Your task to perform on an android device: Clear the shopping cart on amazon. Search for "amazon basics triple a" on amazon, select the first entry, add it to the cart, then select checkout. Image 0: 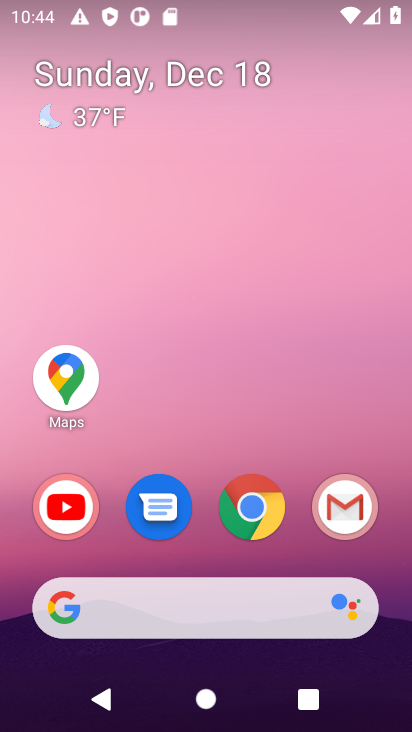
Step 0: click (246, 500)
Your task to perform on an android device: Clear the shopping cart on amazon. Search for "amazon basics triple a" on amazon, select the first entry, add it to the cart, then select checkout. Image 1: 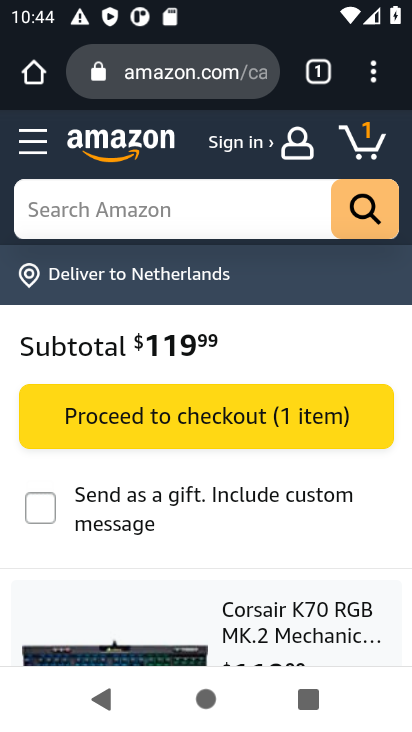
Step 1: drag from (194, 444) to (200, 194)
Your task to perform on an android device: Clear the shopping cart on amazon. Search for "amazon basics triple a" on amazon, select the first entry, add it to the cart, then select checkout. Image 2: 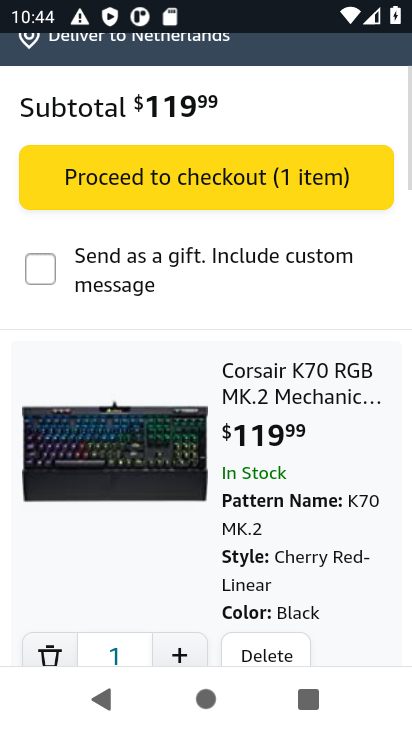
Step 2: drag from (203, 466) to (205, 215)
Your task to perform on an android device: Clear the shopping cart on amazon. Search for "amazon basics triple a" on amazon, select the first entry, add it to the cart, then select checkout. Image 3: 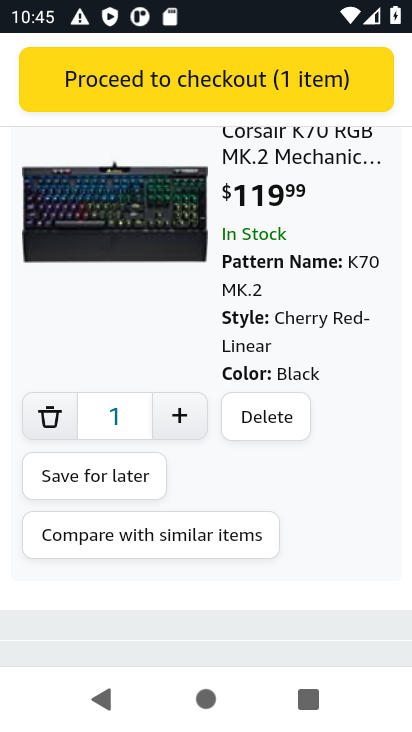
Step 3: click (262, 423)
Your task to perform on an android device: Clear the shopping cart on amazon. Search for "amazon basics triple a" on amazon, select the first entry, add it to the cart, then select checkout. Image 4: 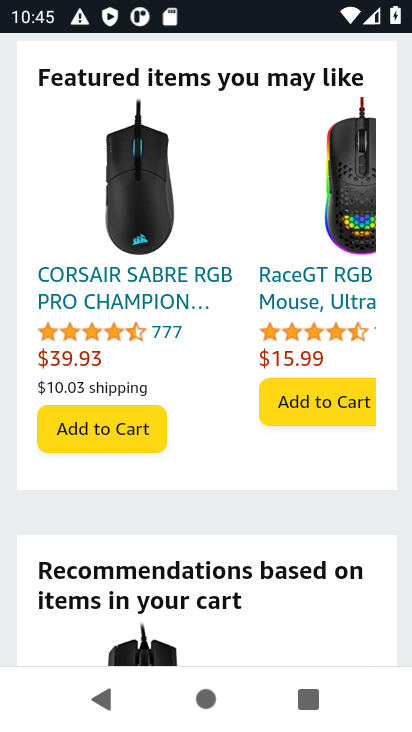
Step 4: drag from (213, 418) to (200, 573)
Your task to perform on an android device: Clear the shopping cart on amazon. Search for "amazon basics triple a" on amazon, select the first entry, add it to the cart, then select checkout. Image 5: 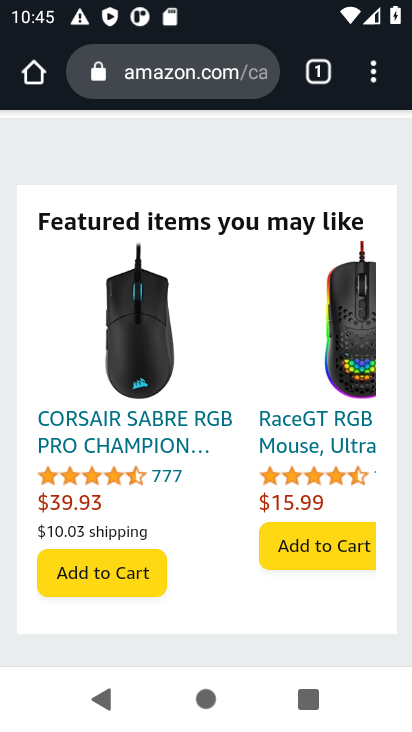
Step 5: drag from (217, 408) to (221, 572)
Your task to perform on an android device: Clear the shopping cart on amazon. Search for "amazon basics triple a" on amazon, select the first entry, add it to the cart, then select checkout. Image 6: 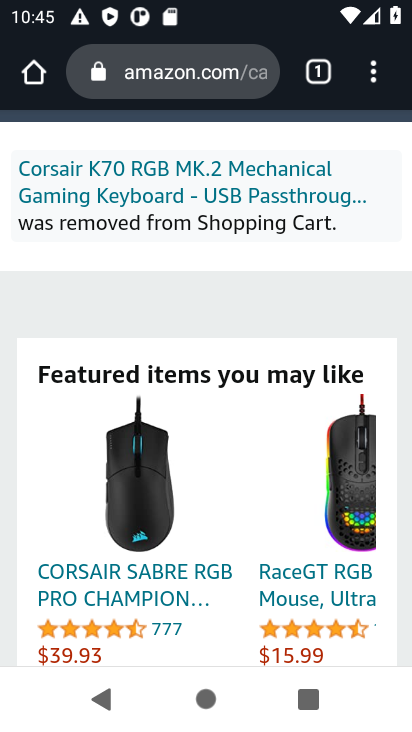
Step 6: drag from (187, 283) to (192, 503)
Your task to perform on an android device: Clear the shopping cart on amazon. Search for "amazon basics triple a" on amazon, select the first entry, add it to the cart, then select checkout. Image 7: 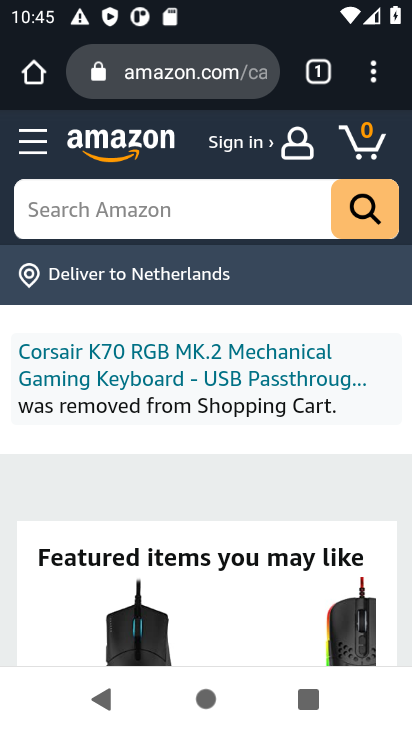
Step 7: click (41, 210)
Your task to perform on an android device: Clear the shopping cart on amazon. Search for "amazon basics triple a" on amazon, select the first entry, add it to the cart, then select checkout. Image 8: 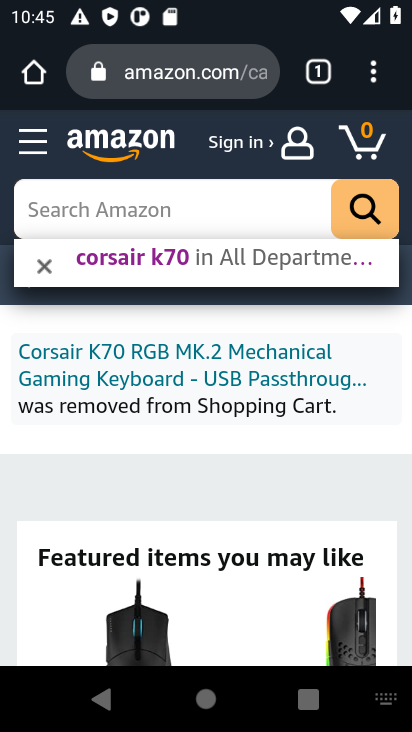
Step 8: type "amazon basics triple a"
Your task to perform on an android device: Clear the shopping cart on amazon. Search for "amazon basics triple a" on amazon, select the first entry, add it to the cart, then select checkout. Image 9: 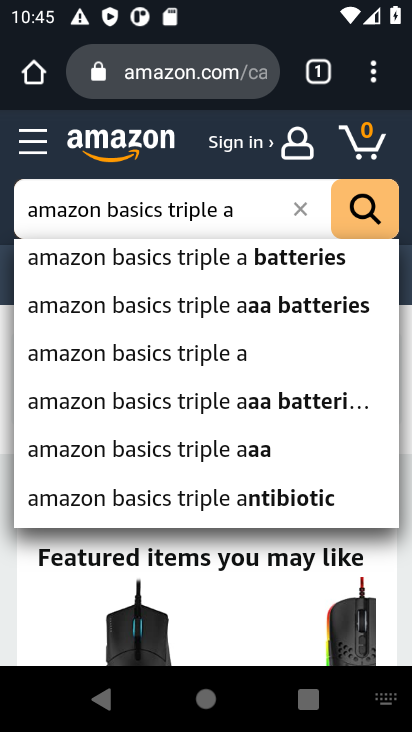
Step 9: click (173, 264)
Your task to perform on an android device: Clear the shopping cart on amazon. Search for "amazon basics triple a" on amazon, select the first entry, add it to the cart, then select checkout. Image 10: 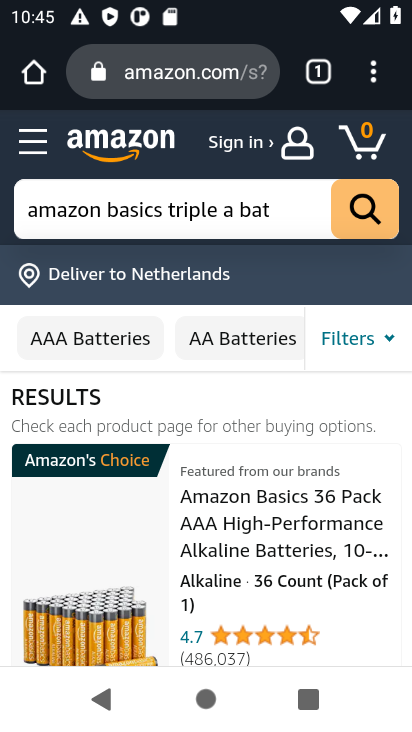
Step 10: drag from (144, 539) to (180, 331)
Your task to perform on an android device: Clear the shopping cart on amazon. Search for "amazon basics triple a" on amazon, select the first entry, add it to the cart, then select checkout. Image 11: 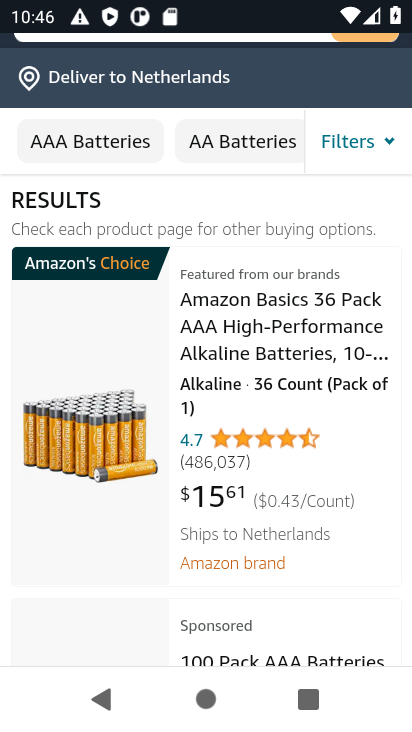
Step 11: drag from (136, 518) to (141, 365)
Your task to perform on an android device: Clear the shopping cart on amazon. Search for "amazon basics triple a" on amazon, select the first entry, add it to the cart, then select checkout. Image 12: 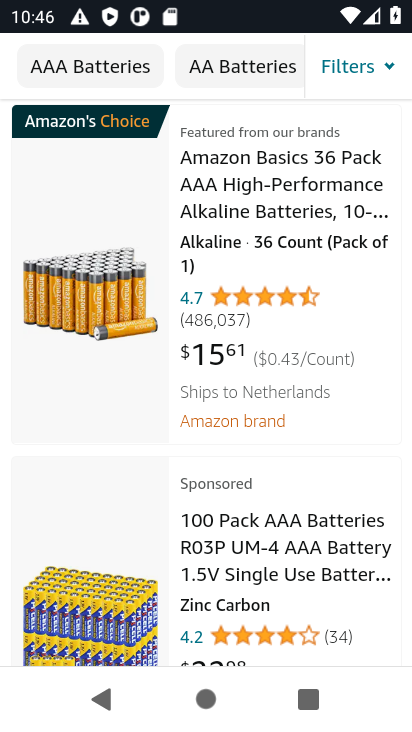
Step 12: click (272, 223)
Your task to perform on an android device: Clear the shopping cart on amazon. Search for "amazon basics triple a" on amazon, select the first entry, add it to the cart, then select checkout. Image 13: 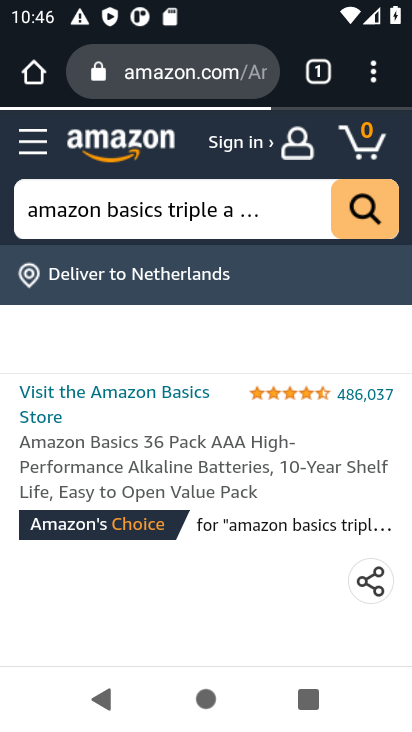
Step 13: drag from (234, 526) to (226, 225)
Your task to perform on an android device: Clear the shopping cart on amazon. Search for "amazon basics triple a" on amazon, select the first entry, add it to the cart, then select checkout. Image 14: 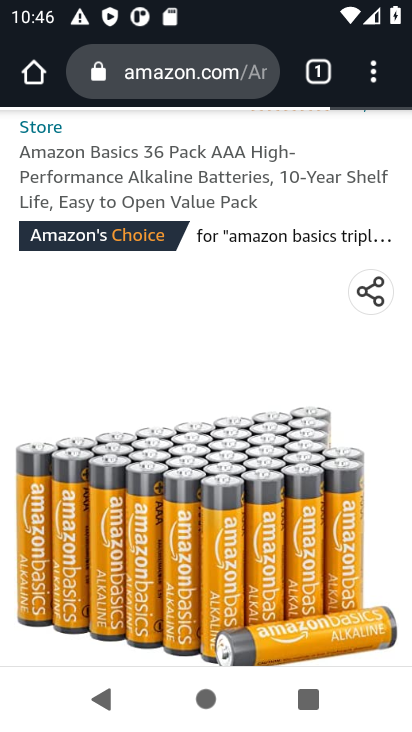
Step 14: drag from (144, 426) to (142, 201)
Your task to perform on an android device: Clear the shopping cart on amazon. Search for "amazon basics triple a" on amazon, select the first entry, add it to the cart, then select checkout. Image 15: 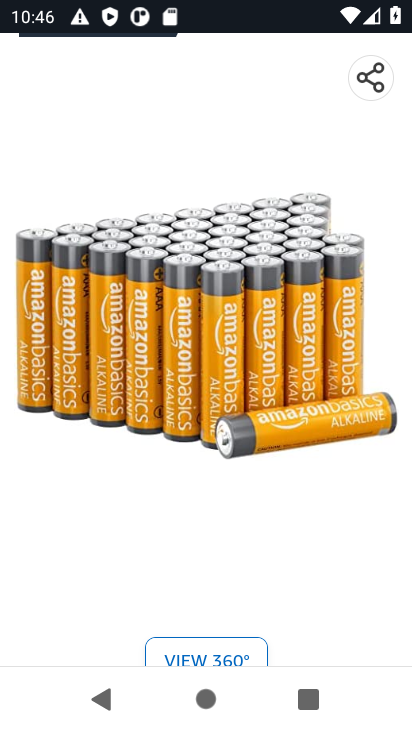
Step 15: drag from (140, 490) to (174, 167)
Your task to perform on an android device: Clear the shopping cart on amazon. Search for "amazon basics triple a" on amazon, select the first entry, add it to the cart, then select checkout. Image 16: 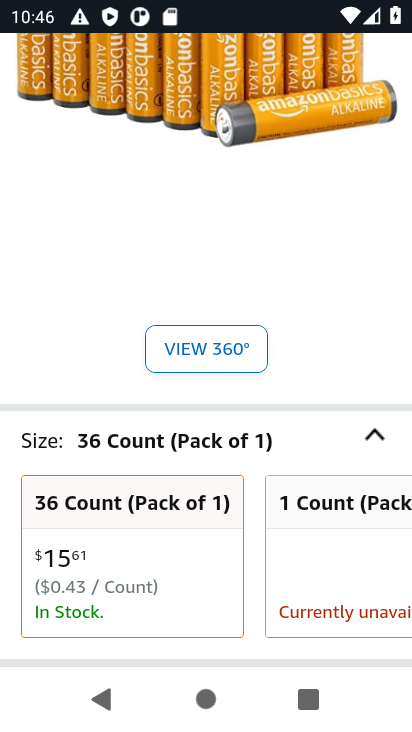
Step 16: drag from (179, 520) to (176, 151)
Your task to perform on an android device: Clear the shopping cart on amazon. Search for "amazon basics triple a" on amazon, select the first entry, add it to the cart, then select checkout. Image 17: 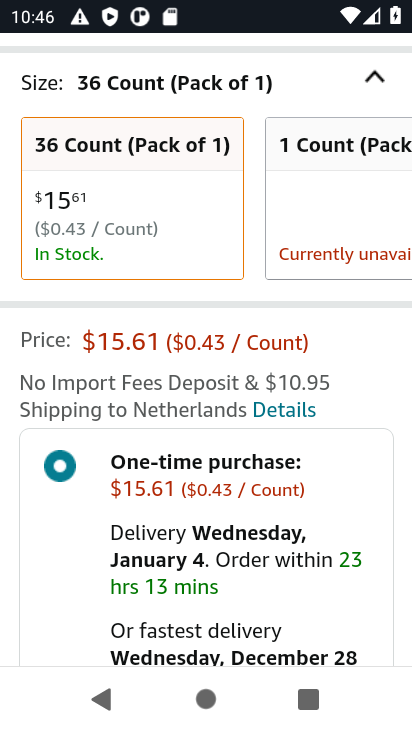
Step 17: drag from (175, 525) to (169, 131)
Your task to perform on an android device: Clear the shopping cart on amazon. Search for "amazon basics triple a" on amazon, select the first entry, add it to the cart, then select checkout. Image 18: 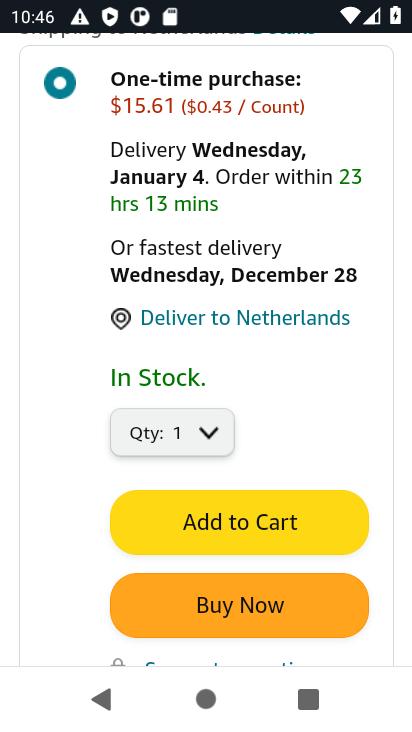
Step 18: click (187, 521)
Your task to perform on an android device: Clear the shopping cart on amazon. Search for "amazon basics triple a" on amazon, select the first entry, add it to the cart, then select checkout. Image 19: 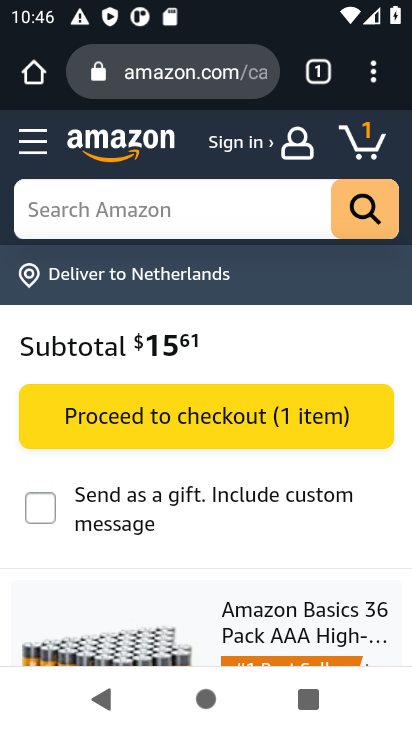
Step 19: click (206, 423)
Your task to perform on an android device: Clear the shopping cart on amazon. Search for "amazon basics triple a" on amazon, select the first entry, add it to the cart, then select checkout. Image 20: 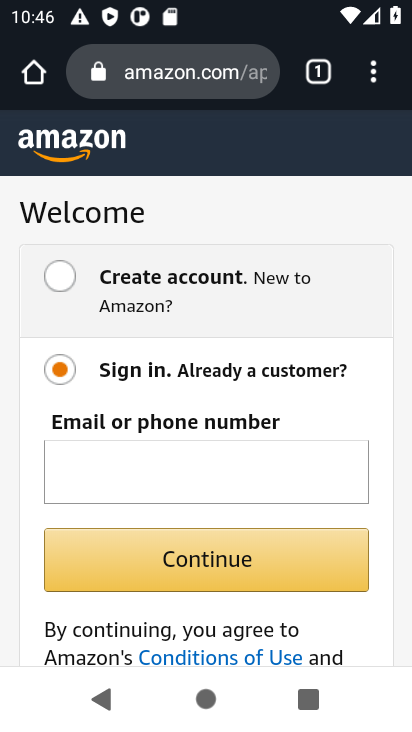
Step 20: task complete